Your task to perform on an android device: Go to Yahoo.com Image 0: 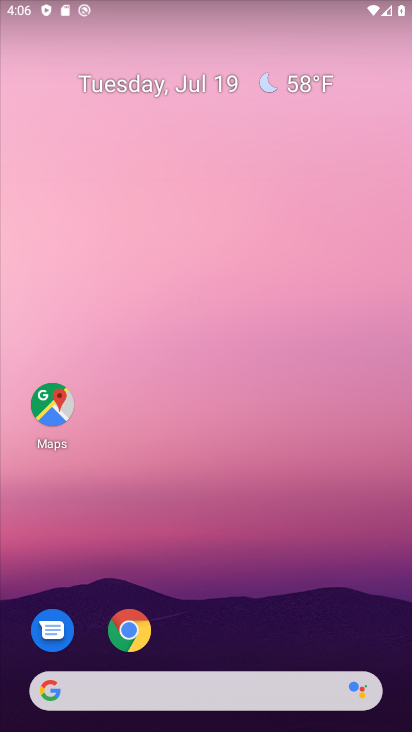
Step 0: click (79, 694)
Your task to perform on an android device: Go to Yahoo.com Image 1: 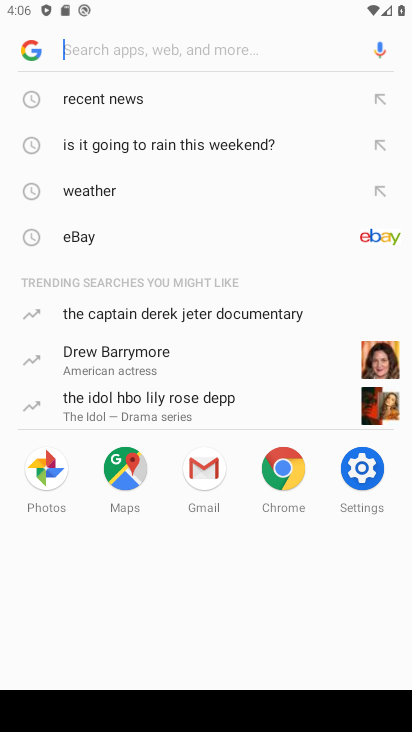
Step 1: type "Yahoo.com"
Your task to perform on an android device: Go to Yahoo.com Image 2: 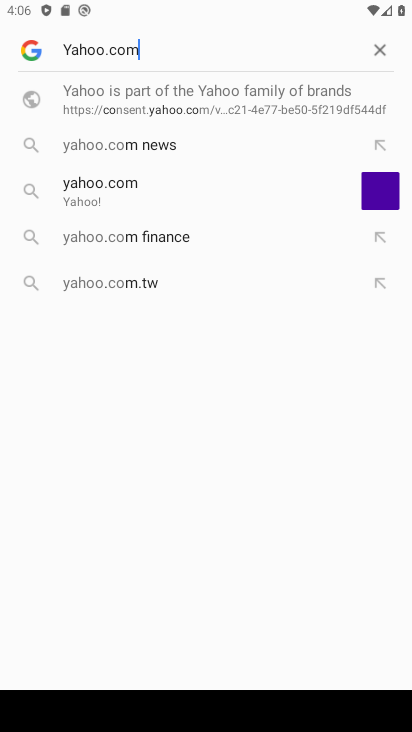
Step 2: type ""
Your task to perform on an android device: Go to Yahoo.com Image 3: 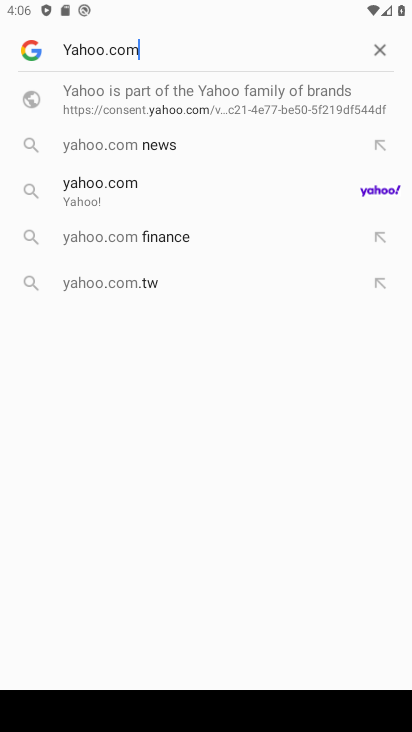
Step 3: click (122, 198)
Your task to perform on an android device: Go to Yahoo.com Image 4: 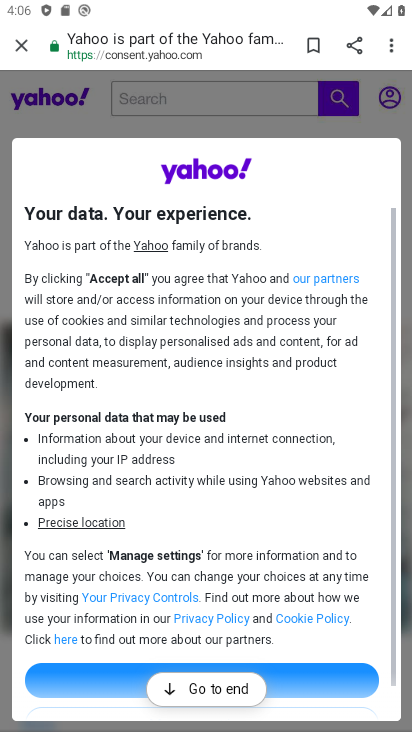
Step 4: task complete